Your task to perform on an android device: Open maps Image 0: 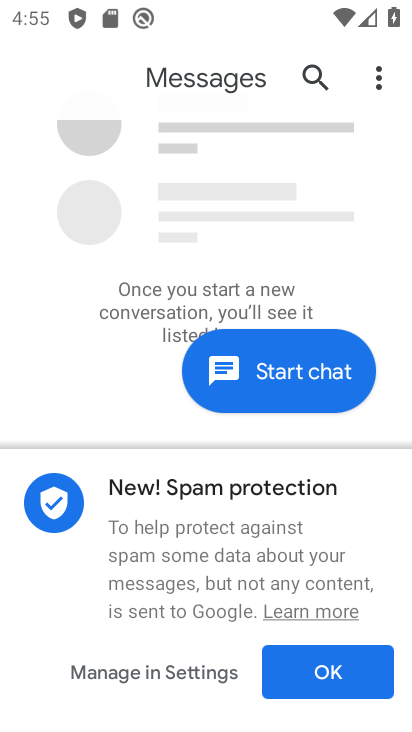
Step 0: press back button
Your task to perform on an android device: Open maps Image 1: 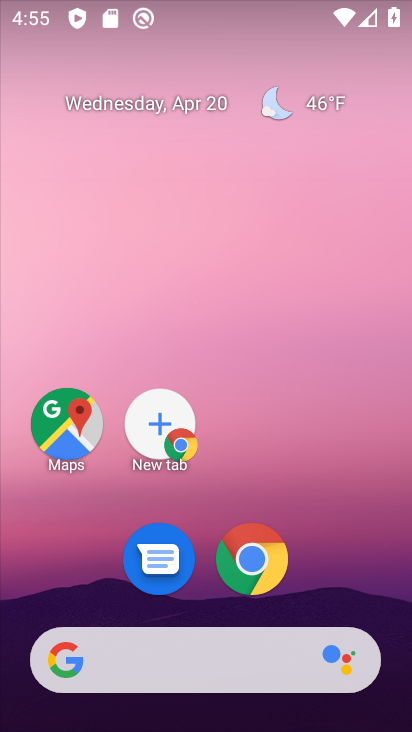
Step 1: click (83, 445)
Your task to perform on an android device: Open maps Image 2: 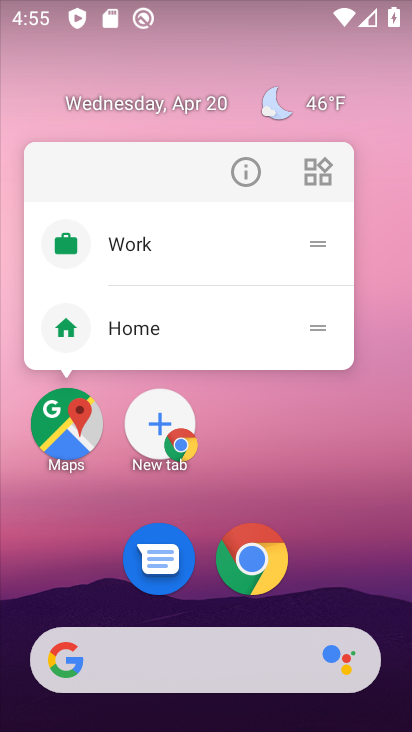
Step 2: click (76, 420)
Your task to perform on an android device: Open maps Image 3: 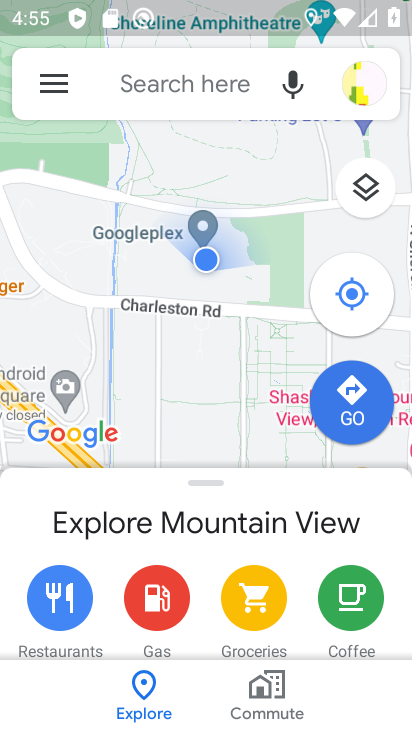
Step 3: task complete